Your task to perform on an android device: Open accessibility settings Image 0: 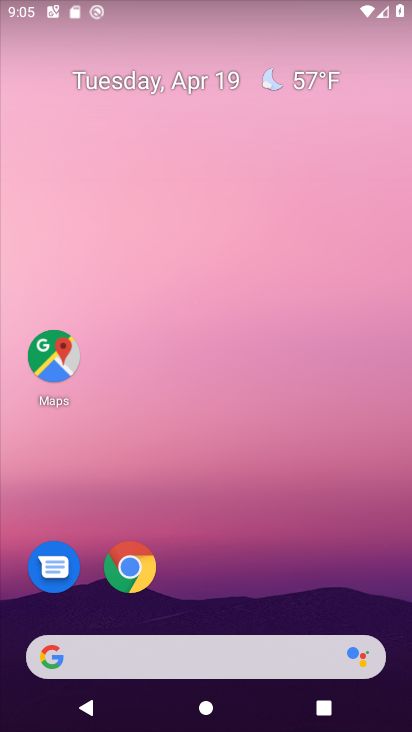
Step 0: drag from (270, 708) to (295, 3)
Your task to perform on an android device: Open accessibility settings Image 1: 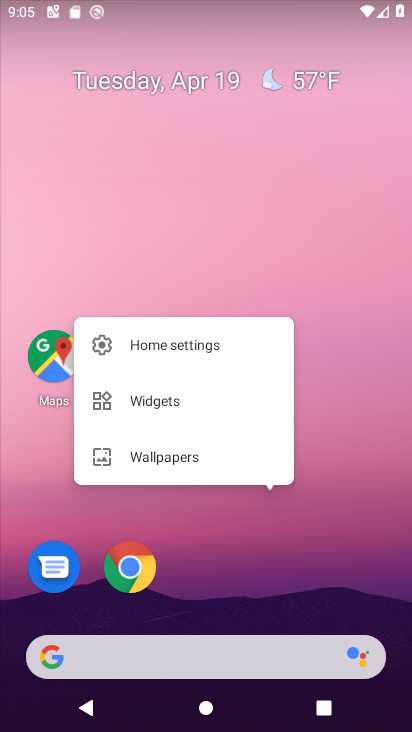
Step 1: drag from (243, 712) to (361, 8)
Your task to perform on an android device: Open accessibility settings Image 2: 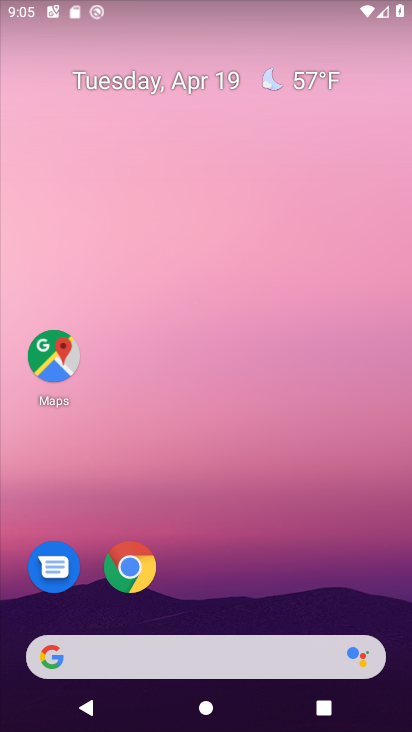
Step 2: drag from (269, 711) to (227, 0)
Your task to perform on an android device: Open accessibility settings Image 3: 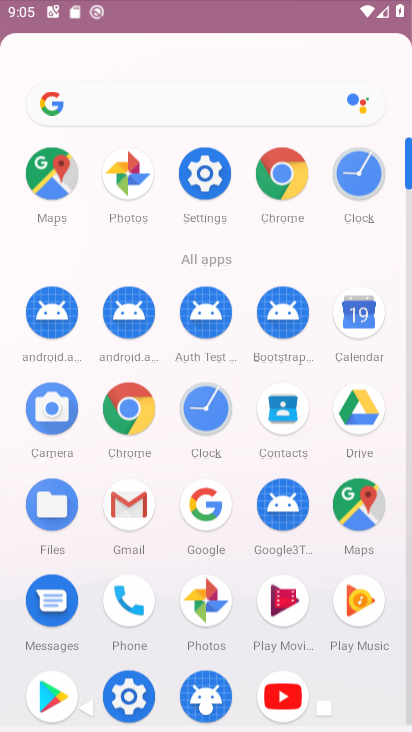
Step 3: click (195, 173)
Your task to perform on an android device: Open accessibility settings Image 4: 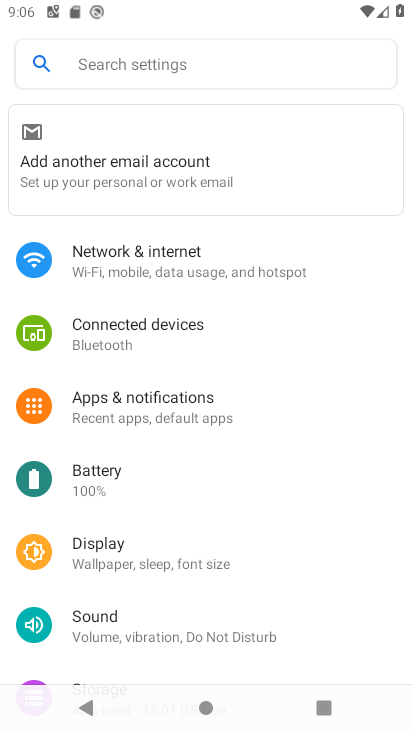
Step 4: drag from (354, 634) to (291, 11)
Your task to perform on an android device: Open accessibility settings Image 5: 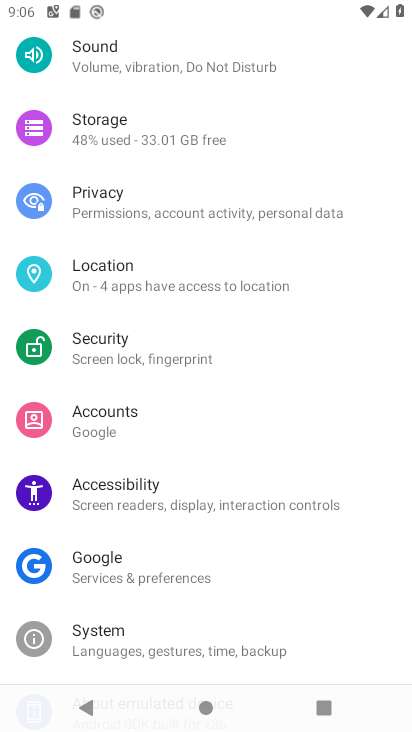
Step 5: click (290, 504)
Your task to perform on an android device: Open accessibility settings Image 6: 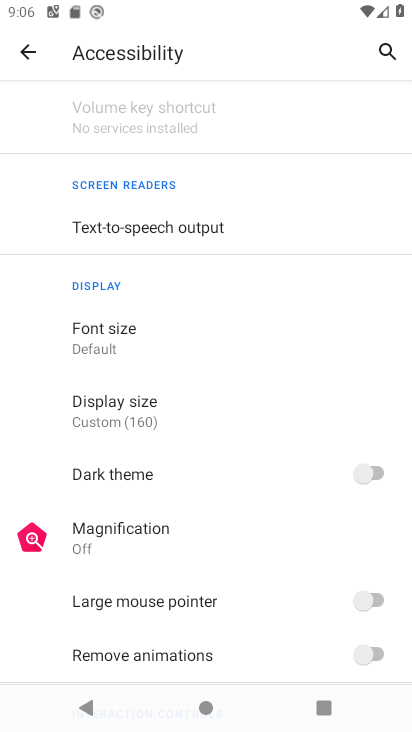
Step 6: task complete